Your task to perform on an android device: What's on my calendar tomorrow? Image 0: 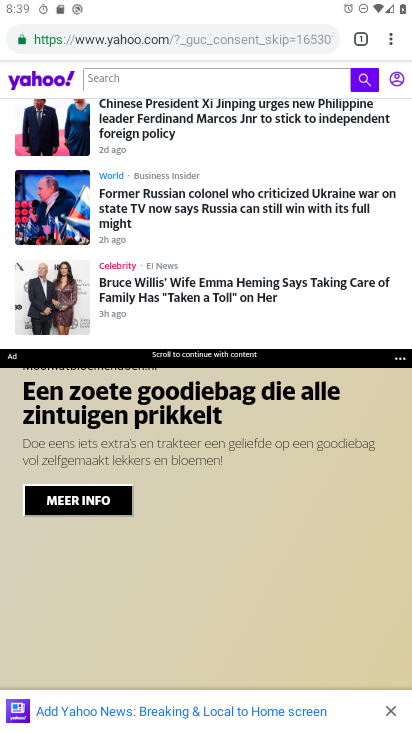
Step 0: press home button
Your task to perform on an android device: What's on my calendar tomorrow? Image 1: 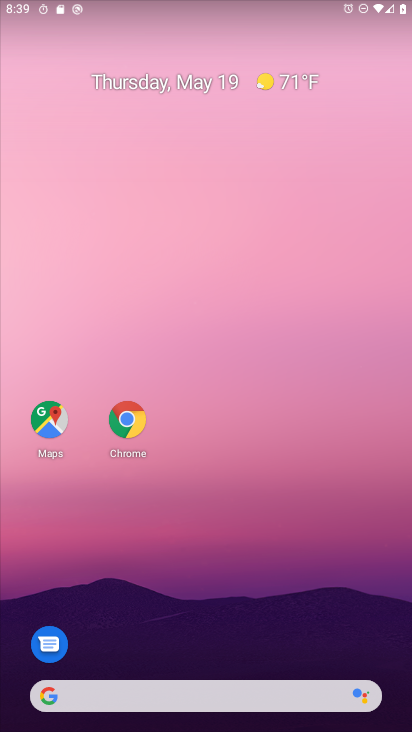
Step 1: drag from (195, 665) to (256, 264)
Your task to perform on an android device: What's on my calendar tomorrow? Image 2: 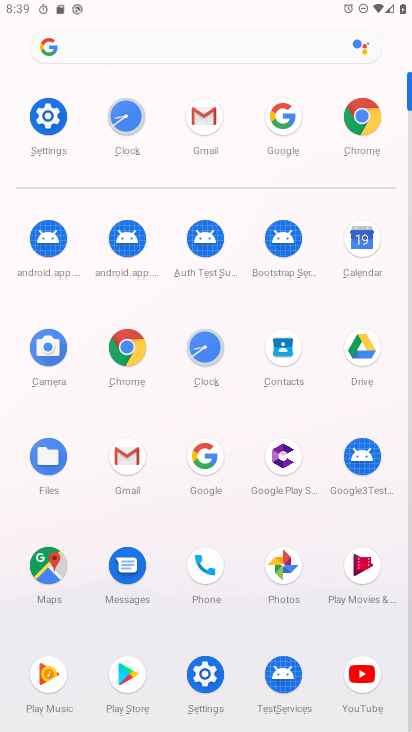
Step 2: click (364, 242)
Your task to perform on an android device: What's on my calendar tomorrow? Image 3: 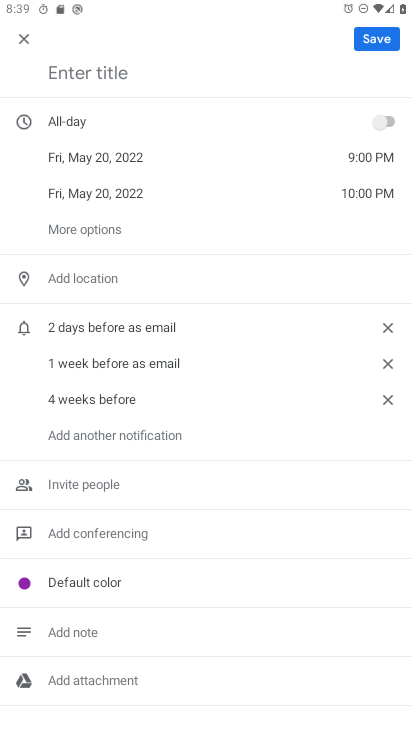
Step 3: click (31, 39)
Your task to perform on an android device: What's on my calendar tomorrow? Image 4: 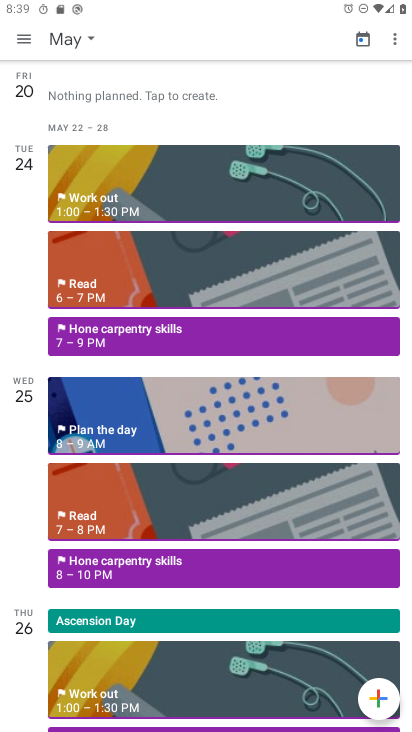
Step 4: drag from (163, 91) to (209, 496)
Your task to perform on an android device: What's on my calendar tomorrow? Image 5: 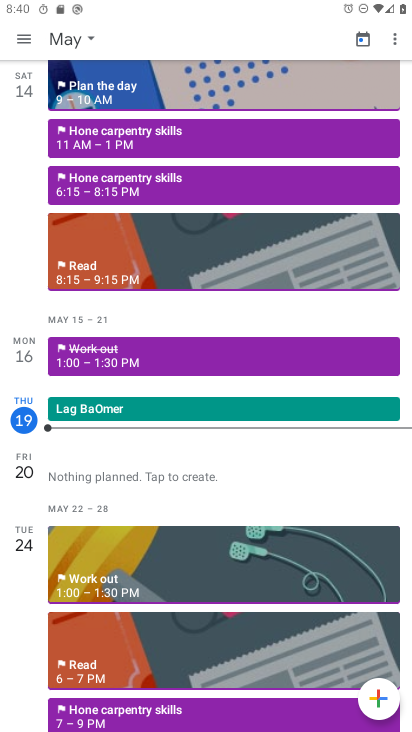
Step 5: drag from (194, 80) to (213, 481)
Your task to perform on an android device: What's on my calendar tomorrow? Image 6: 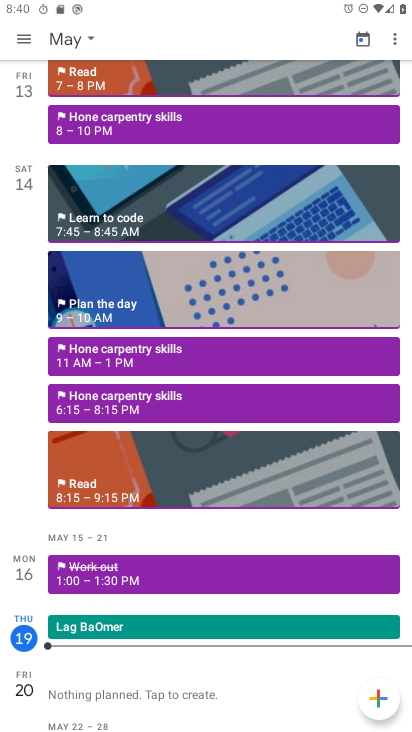
Step 6: drag from (210, 49) to (263, 417)
Your task to perform on an android device: What's on my calendar tomorrow? Image 7: 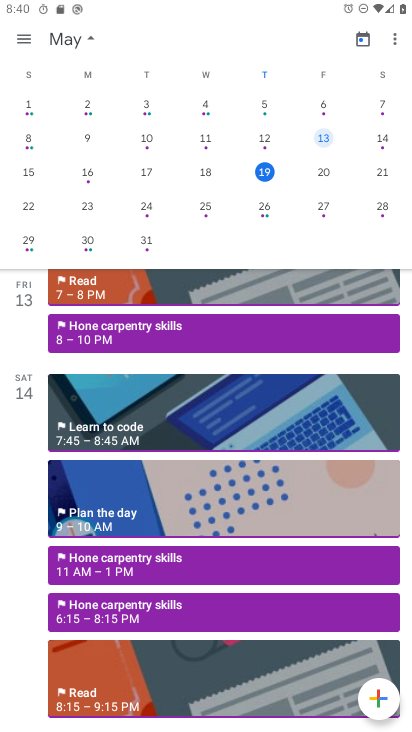
Step 7: drag from (151, 615) to (209, 311)
Your task to perform on an android device: What's on my calendar tomorrow? Image 8: 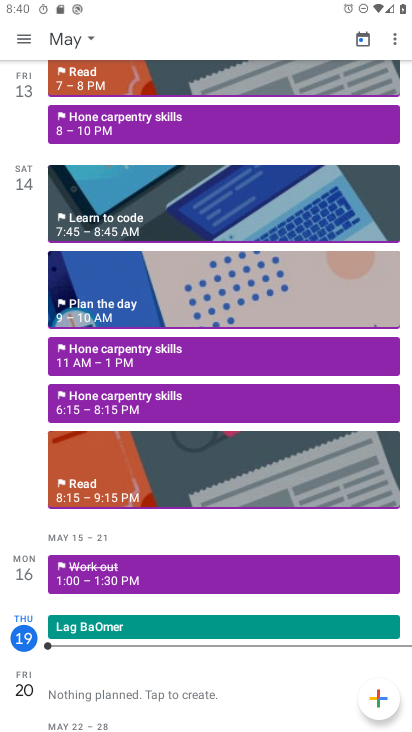
Step 8: click (100, 634)
Your task to perform on an android device: What's on my calendar tomorrow? Image 9: 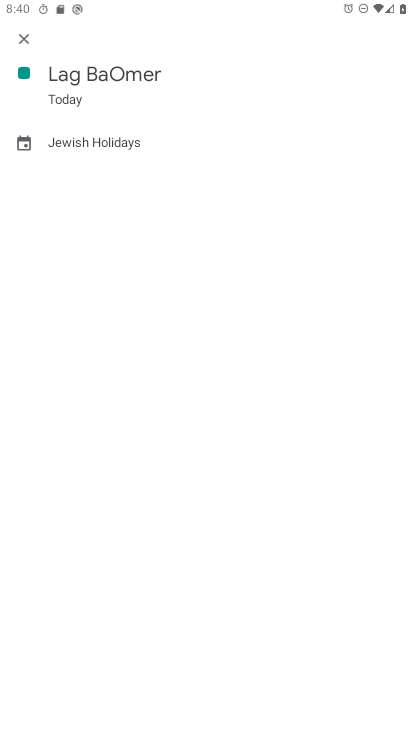
Step 9: task complete